Your task to perform on an android device: clear all cookies in the chrome app Image 0: 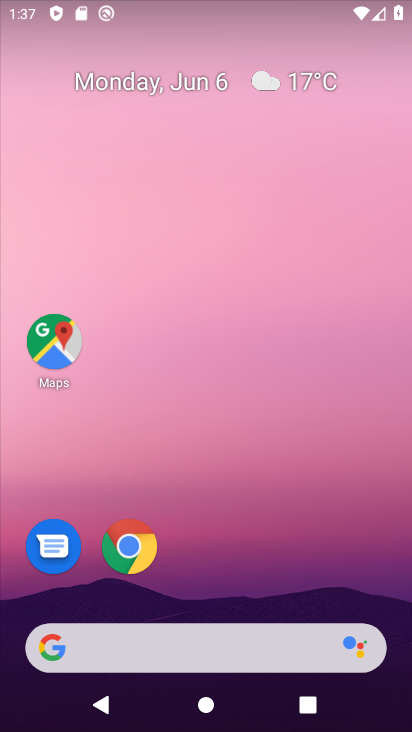
Step 0: click (130, 547)
Your task to perform on an android device: clear all cookies in the chrome app Image 1: 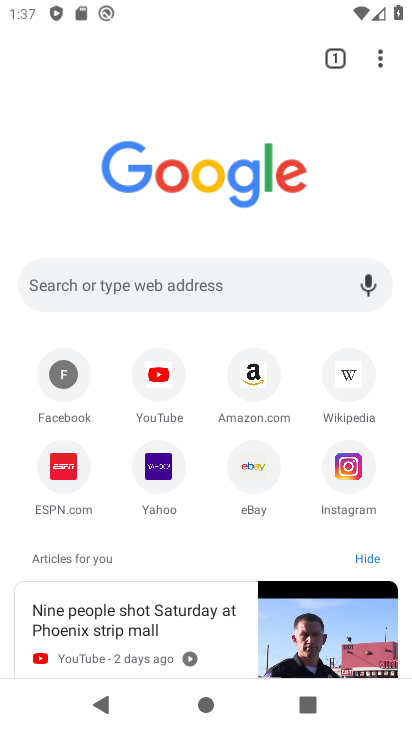
Step 1: task complete